Your task to perform on an android device: Add "razer kraken" to the cart on target, then select checkout. Image 0: 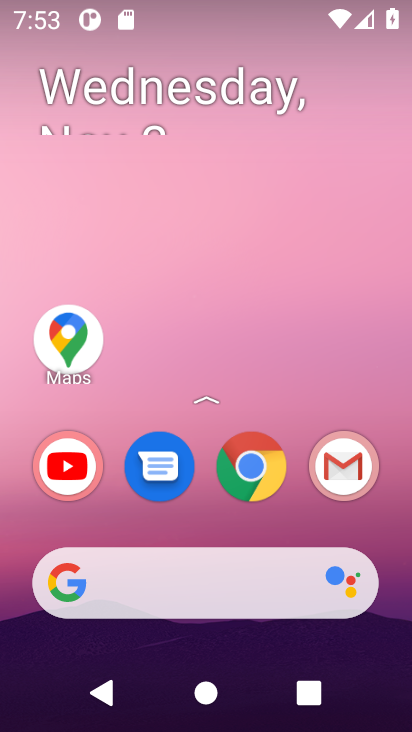
Step 0: click (207, 585)
Your task to perform on an android device: Add "razer kraken" to the cart on target, then select checkout. Image 1: 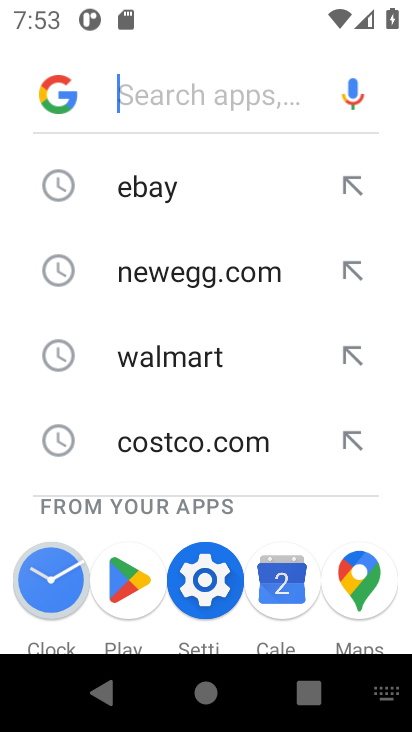
Step 1: type "target"
Your task to perform on an android device: Add "razer kraken" to the cart on target, then select checkout. Image 2: 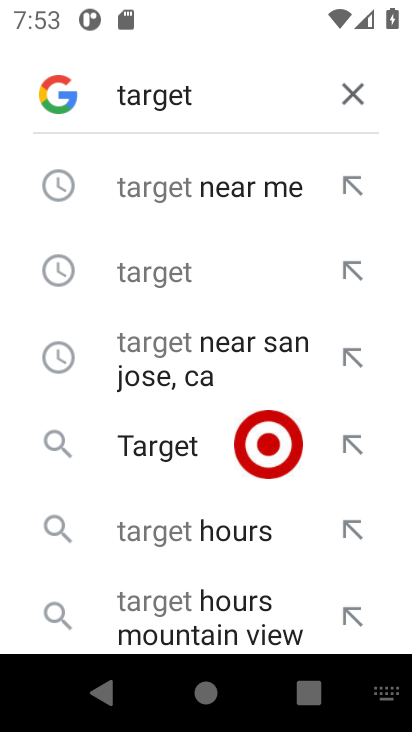
Step 2: type ""
Your task to perform on an android device: Add "razer kraken" to the cart on target, then select checkout. Image 3: 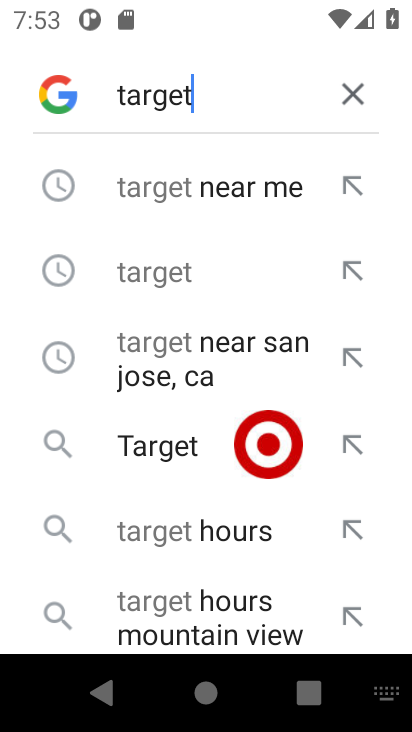
Step 3: click (101, 266)
Your task to perform on an android device: Add "razer kraken" to the cart on target, then select checkout. Image 4: 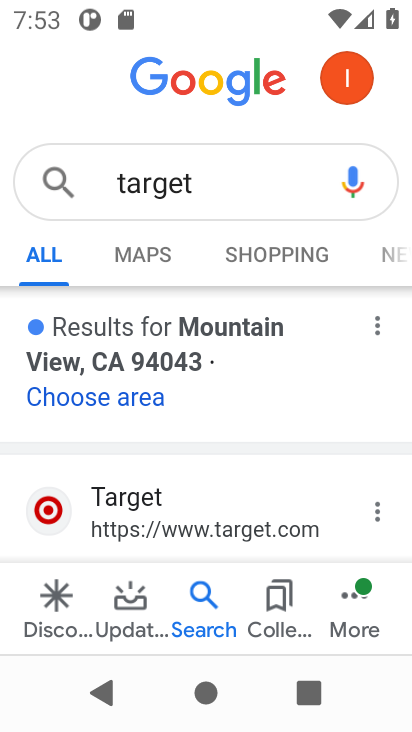
Step 4: click (107, 507)
Your task to perform on an android device: Add "razer kraken" to the cart on target, then select checkout. Image 5: 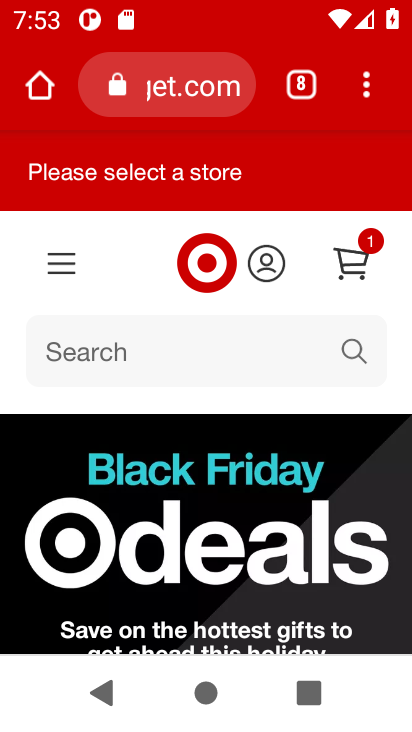
Step 5: drag from (222, 496) to (225, 239)
Your task to perform on an android device: Add "razer kraken" to the cart on target, then select checkout. Image 6: 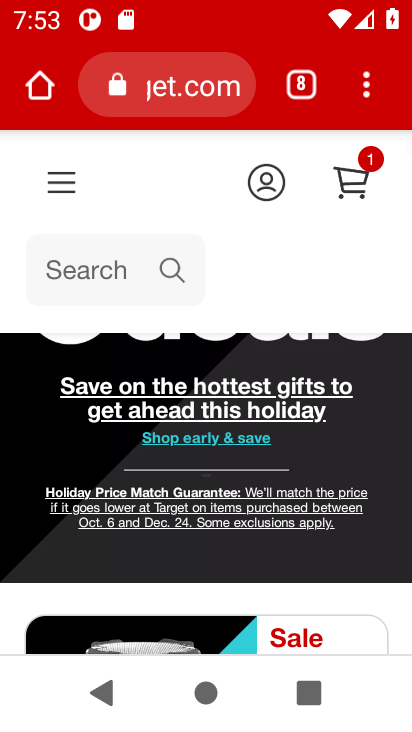
Step 6: drag from (192, 472) to (181, 259)
Your task to perform on an android device: Add "razer kraken" to the cart on target, then select checkout. Image 7: 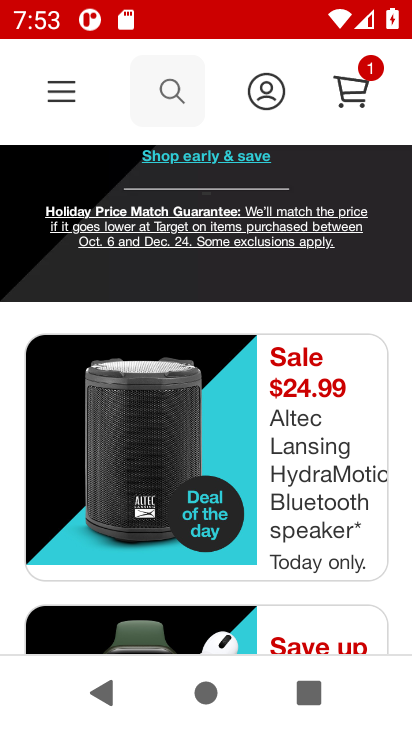
Step 7: drag from (212, 497) to (212, 213)
Your task to perform on an android device: Add "razer kraken" to the cart on target, then select checkout. Image 8: 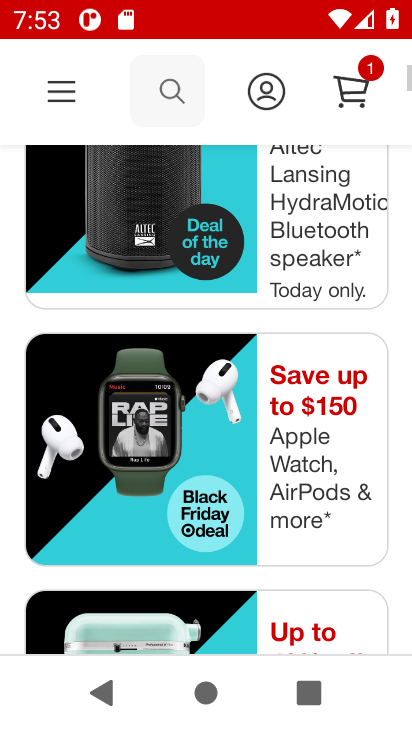
Step 8: drag from (216, 491) to (235, 217)
Your task to perform on an android device: Add "razer kraken" to the cart on target, then select checkout. Image 9: 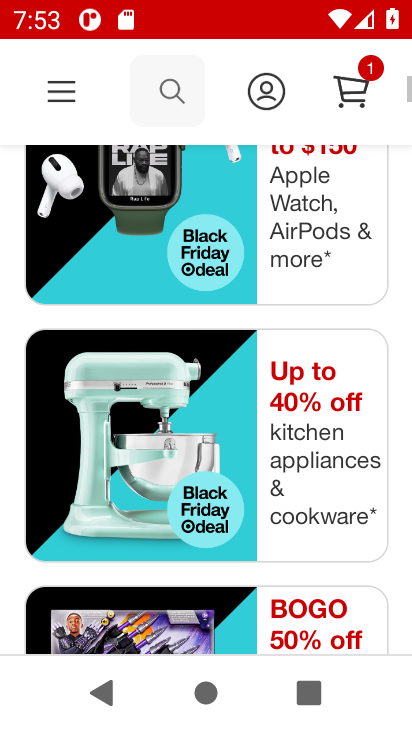
Step 9: drag from (241, 446) to (252, 254)
Your task to perform on an android device: Add "razer kraken" to the cart on target, then select checkout. Image 10: 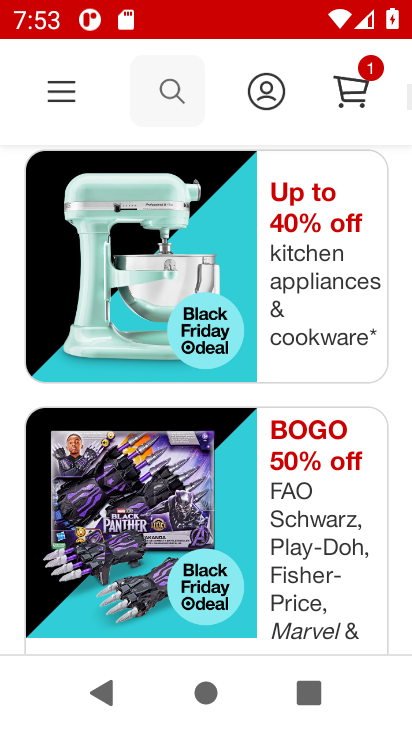
Step 10: drag from (241, 427) to (250, 151)
Your task to perform on an android device: Add "razer kraken" to the cart on target, then select checkout. Image 11: 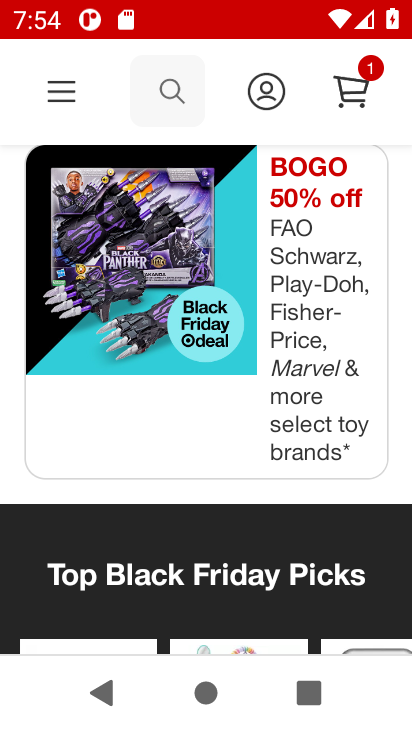
Step 11: drag from (235, 204) to (275, 429)
Your task to perform on an android device: Add "razer kraken" to the cart on target, then select checkout. Image 12: 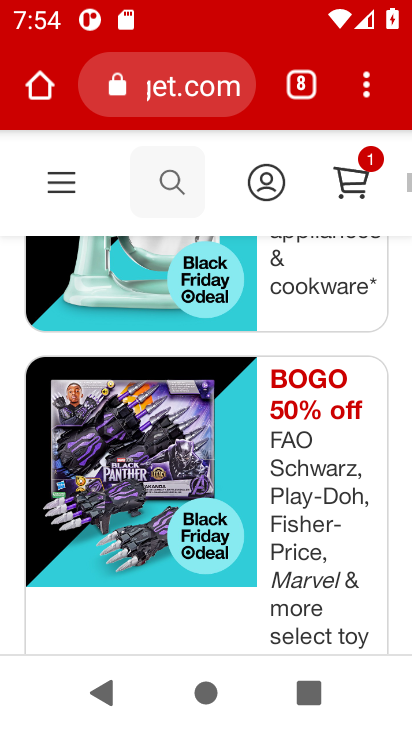
Step 12: drag from (261, 276) to (237, 517)
Your task to perform on an android device: Add "razer kraken" to the cart on target, then select checkout. Image 13: 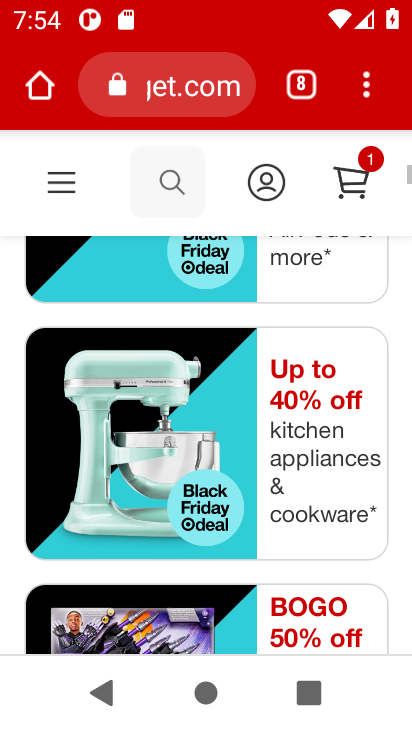
Step 13: drag from (235, 428) to (238, 537)
Your task to perform on an android device: Add "razer kraken" to the cart on target, then select checkout. Image 14: 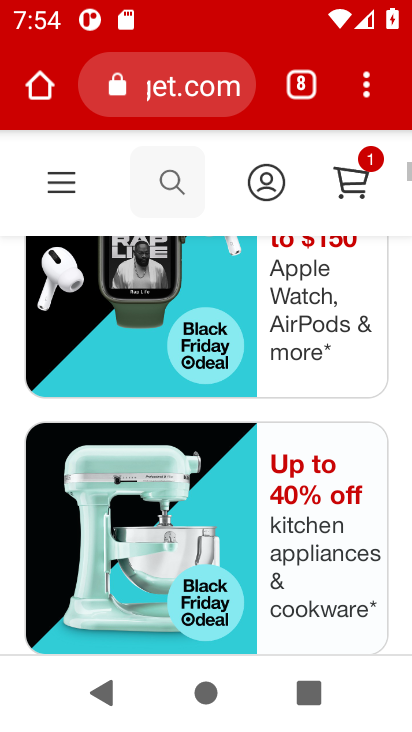
Step 14: drag from (217, 346) to (221, 496)
Your task to perform on an android device: Add "razer kraken" to the cart on target, then select checkout. Image 15: 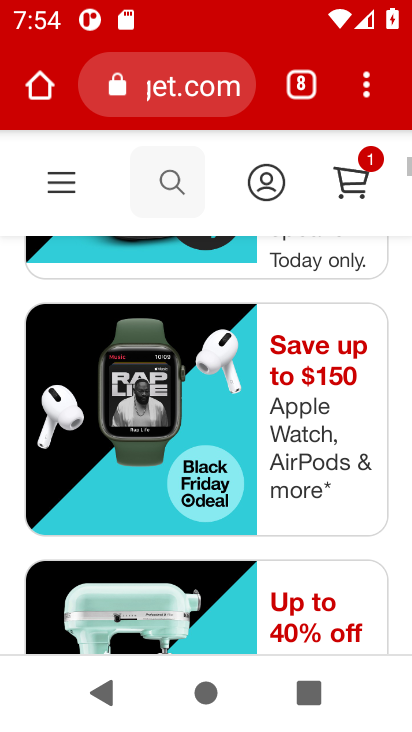
Step 15: drag from (220, 387) to (218, 510)
Your task to perform on an android device: Add "razer kraken" to the cart on target, then select checkout. Image 16: 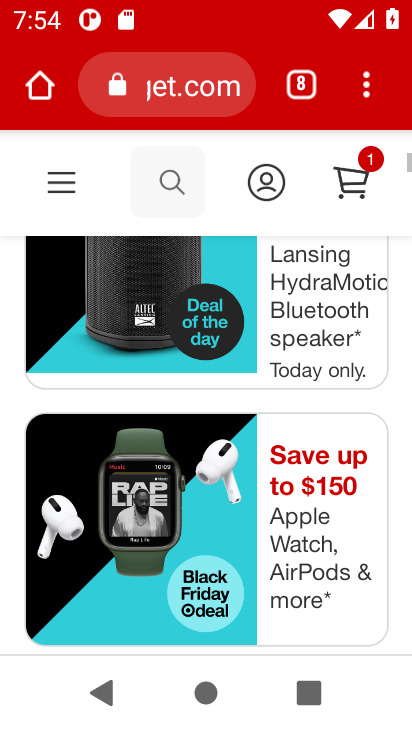
Step 16: drag from (215, 359) to (202, 602)
Your task to perform on an android device: Add "razer kraken" to the cart on target, then select checkout. Image 17: 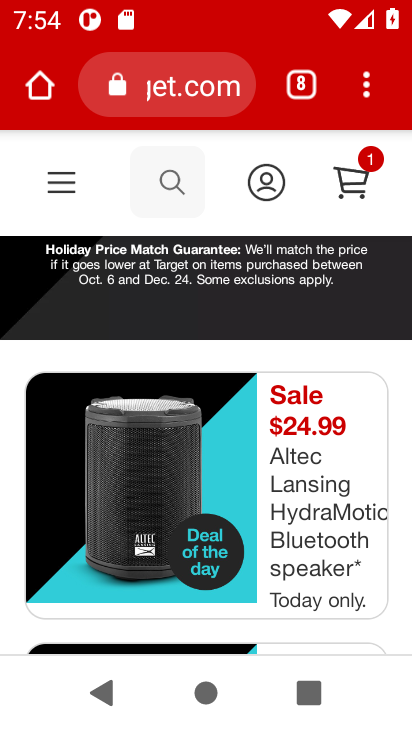
Step 17: click (355, 182)
Your task to perform on an android device: Add "razer kraken" to the cart on target, then select checkout. Image 18: 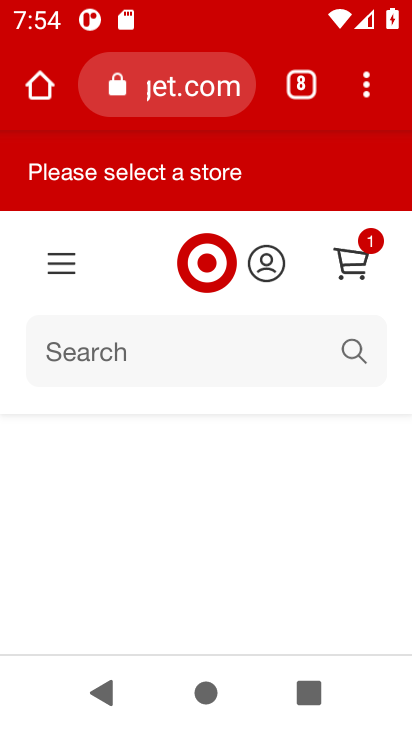
Step 18: click (351, 253)
Your task to perform on an android device: Add "razer kraken" to the cart on target, then select checkout. Image 19: 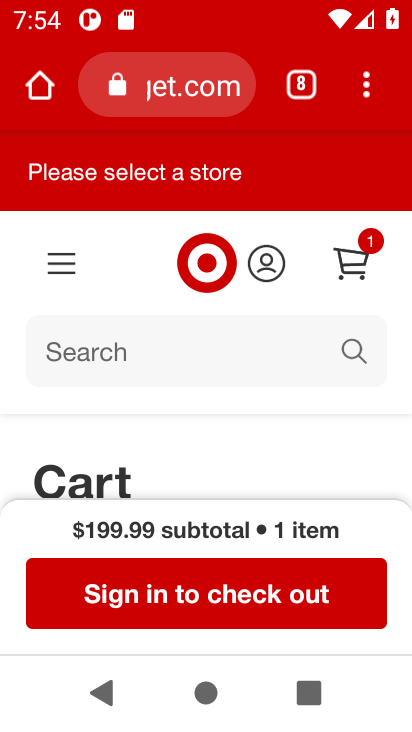
Step 19: drag from (252, 461) to (246, 277)
Your task to perform on an android device: Add "razer kraken" to the cart on target, then select checkout. Image 20: 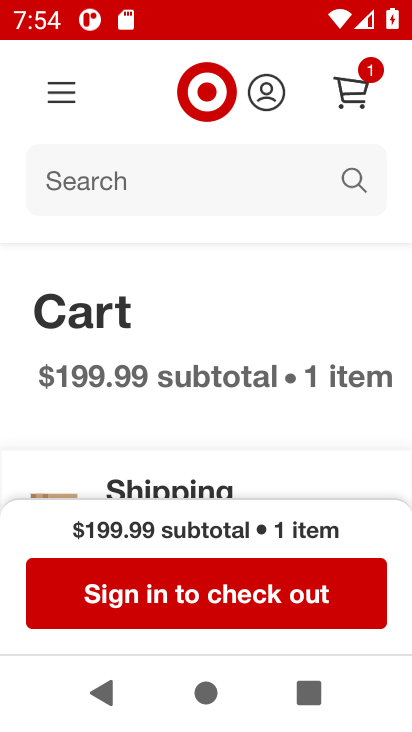
Step 20: drag from (240, 397) to (252, 190)
Your task to perform on an android device: Add "razer kraken" to the cart on target, then select checkout. Image 21: 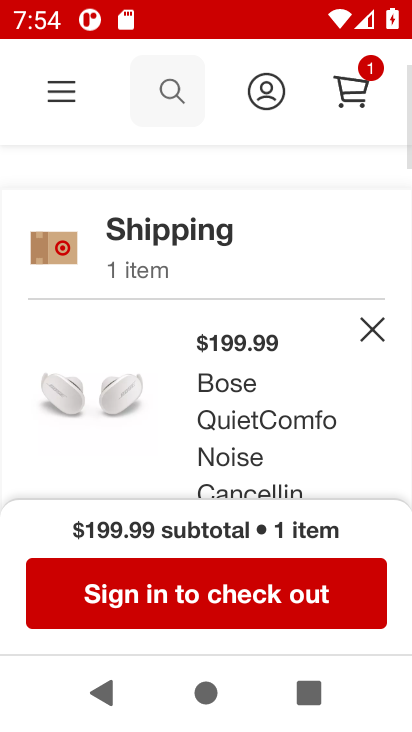
Step 21: drag from (194, 434) to (196, 275)
Your task to perform on an android device: Add "razer kraken" to the cart on target, then select checkout. Image 22: 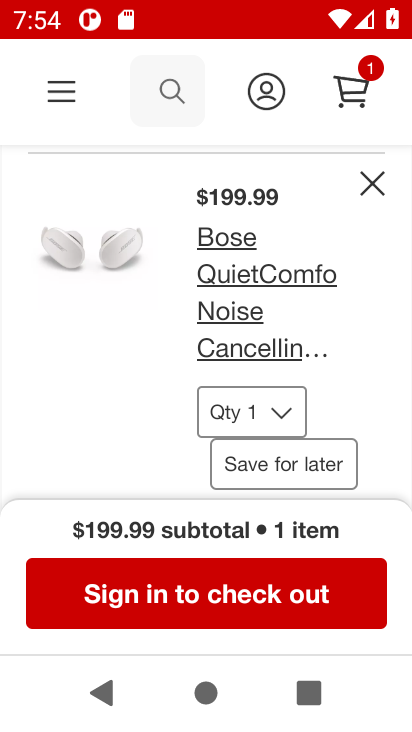
Step 22: click (148, 572)
Your task to perform on an android device: Add "razer kraken" to the cart on target, then select checkout. Image 23: 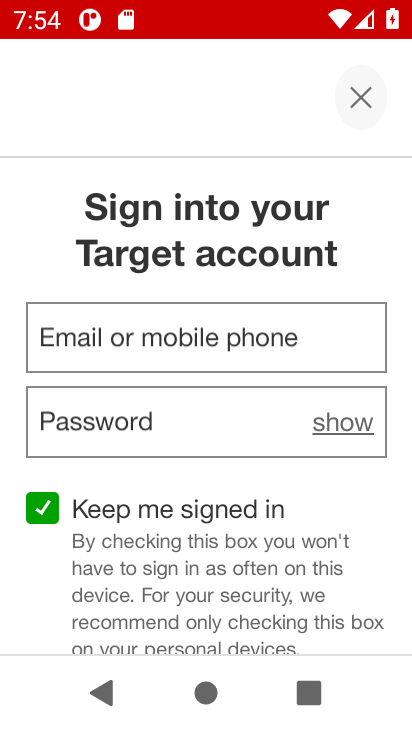
Step 23: task complete